Your task to perform on an android device: Open calendar and show me the third week of next month Image 0: 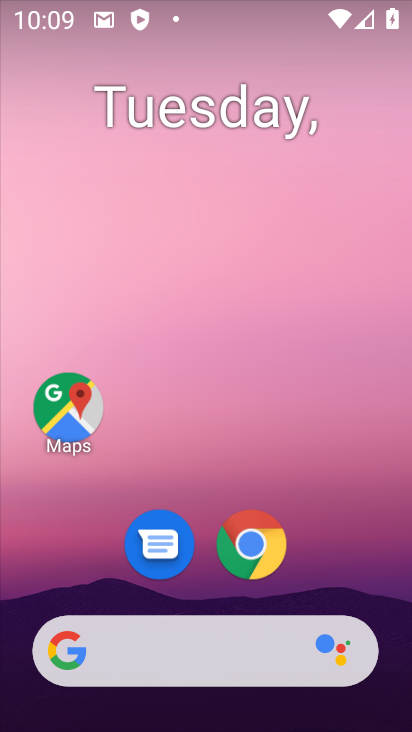
Step 0: drag from (337, 594) to (329, 186)
Your task to perform on an android device: Open calendar and show me the third week of next month Image 1: 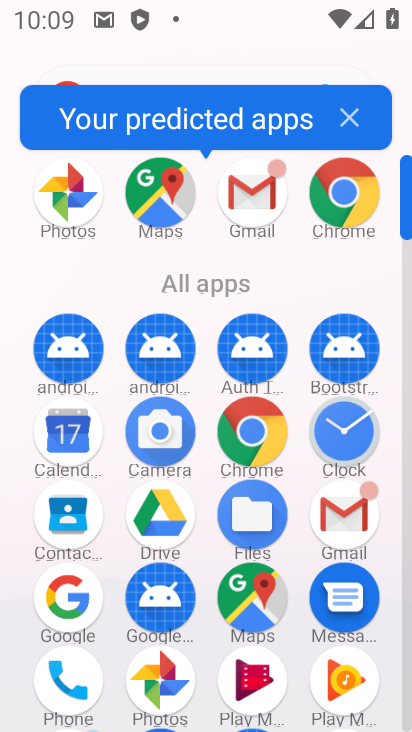
Step 1: click (76, 426)
Your task to perform on an android device: Open calendar and show me the third week of next month Image 2: 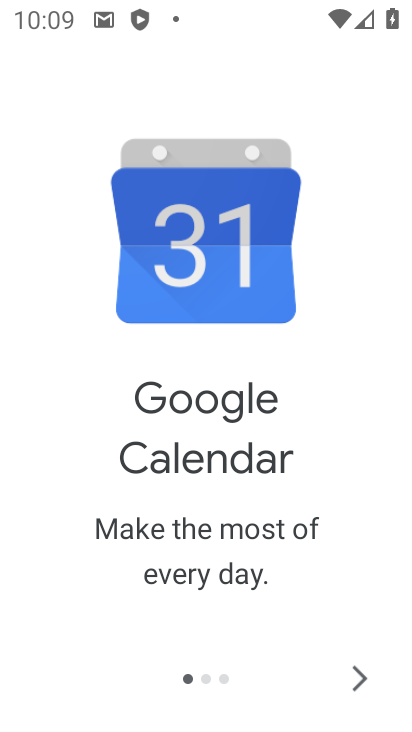
Step 2: click (352, 669)
Your task to perform on an android device: Open calendar and show me the third week of next month Image 3: 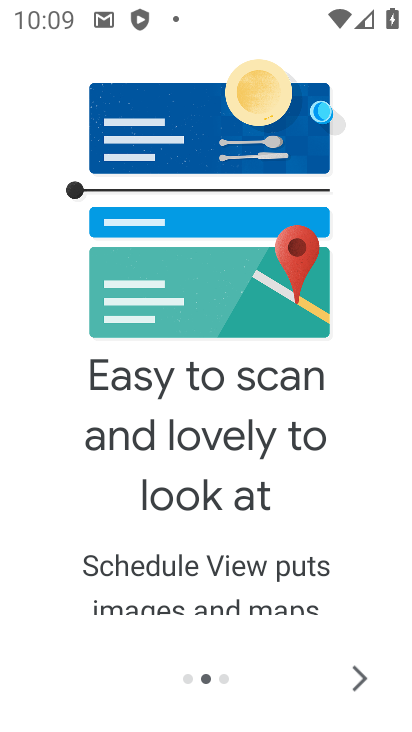
Step 3: click (352, 669)
Your task to perform on an android device: Open calendar and show me the third week of next month Image 4: 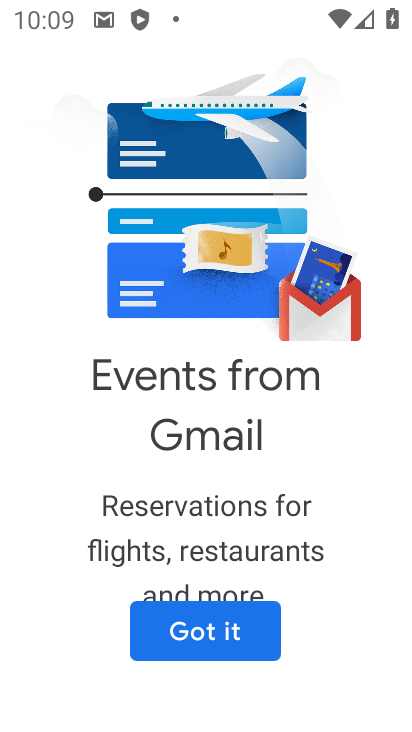
Step 4: click (229, 633)
Your task to perform on an android device: Open calendar and show me the third week of next month Image 5: 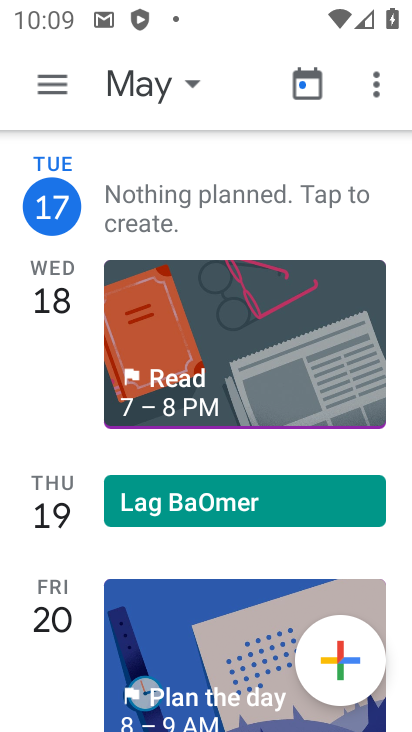
Step 5: click (51, 81)
Your task to perform on an android device: Open calendar and show me the third week of next month Image 6: 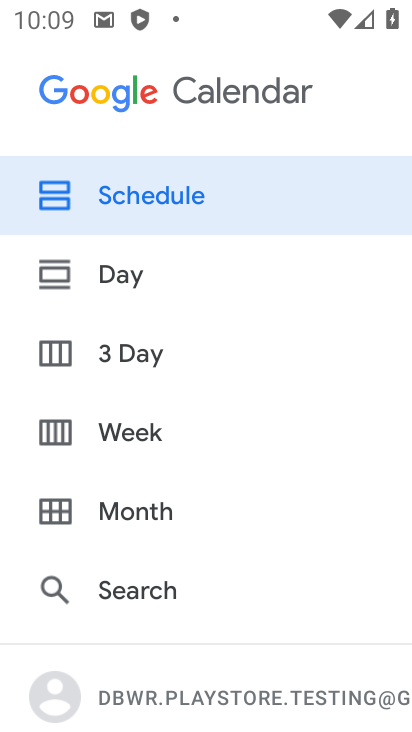
Step 6: click (168, 432)
Your task to perform on an android device: Open calendar and show me the third week of next month Image 7: 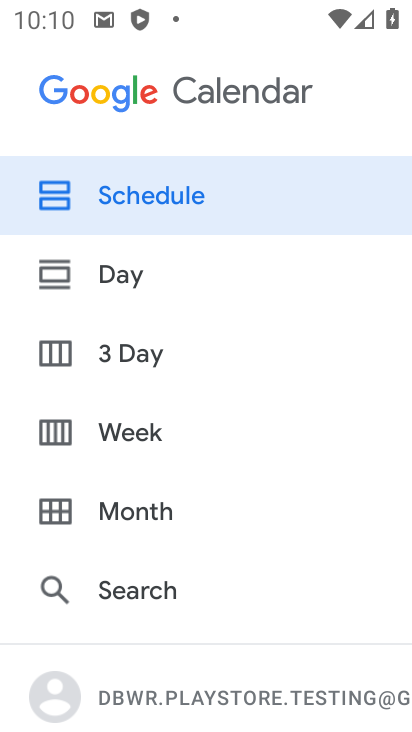
Step 7: click (147, 434)
Your task to perform on an android device: Open calendar and show me the third week of next month Image 8: 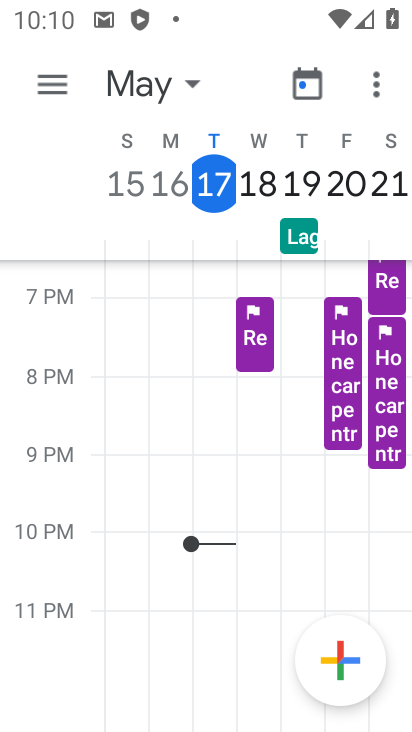
Step 8: click (160, 72)
Your task to perform on an android device: Open calendar and show me the third week of next month Image 9: 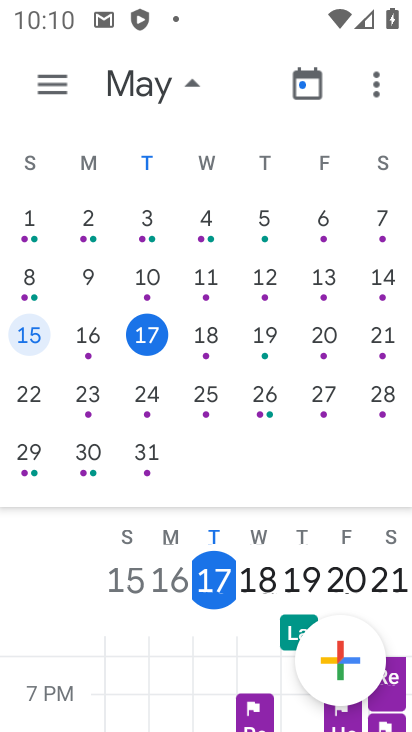
Step 9: drag from (391, 312) to (28, 300)
Your task to perform on an android device: Open calendar and show me the third week of next month Image 10: 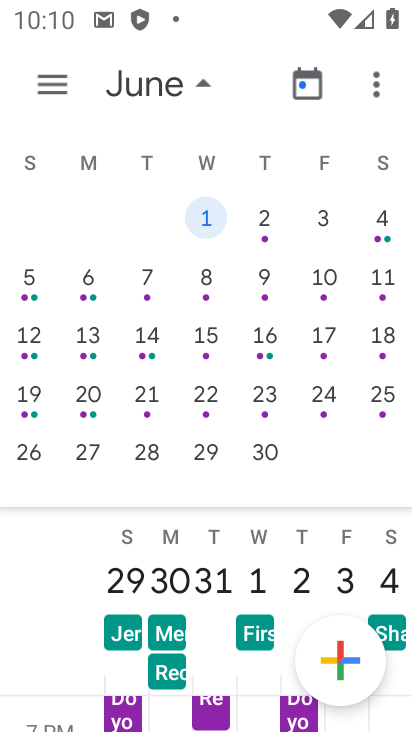
Step 10: click (204, 338)
Your task to perform on an android device: Open calendar and show me the third week of next month Image 11: 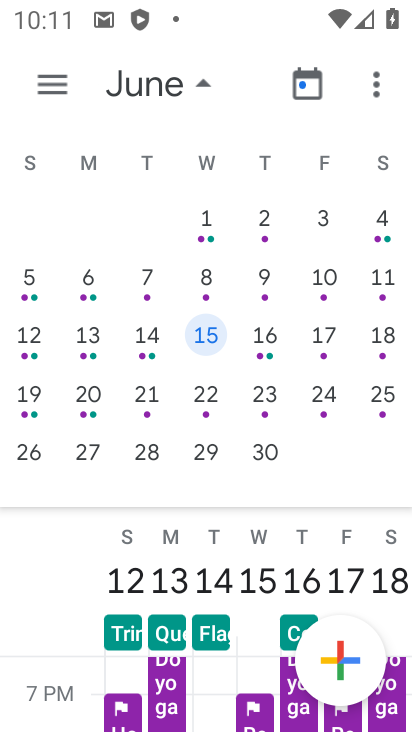
Step 11: task complete